Your task to perform on an android device: Open Yahoo.com Image 0: 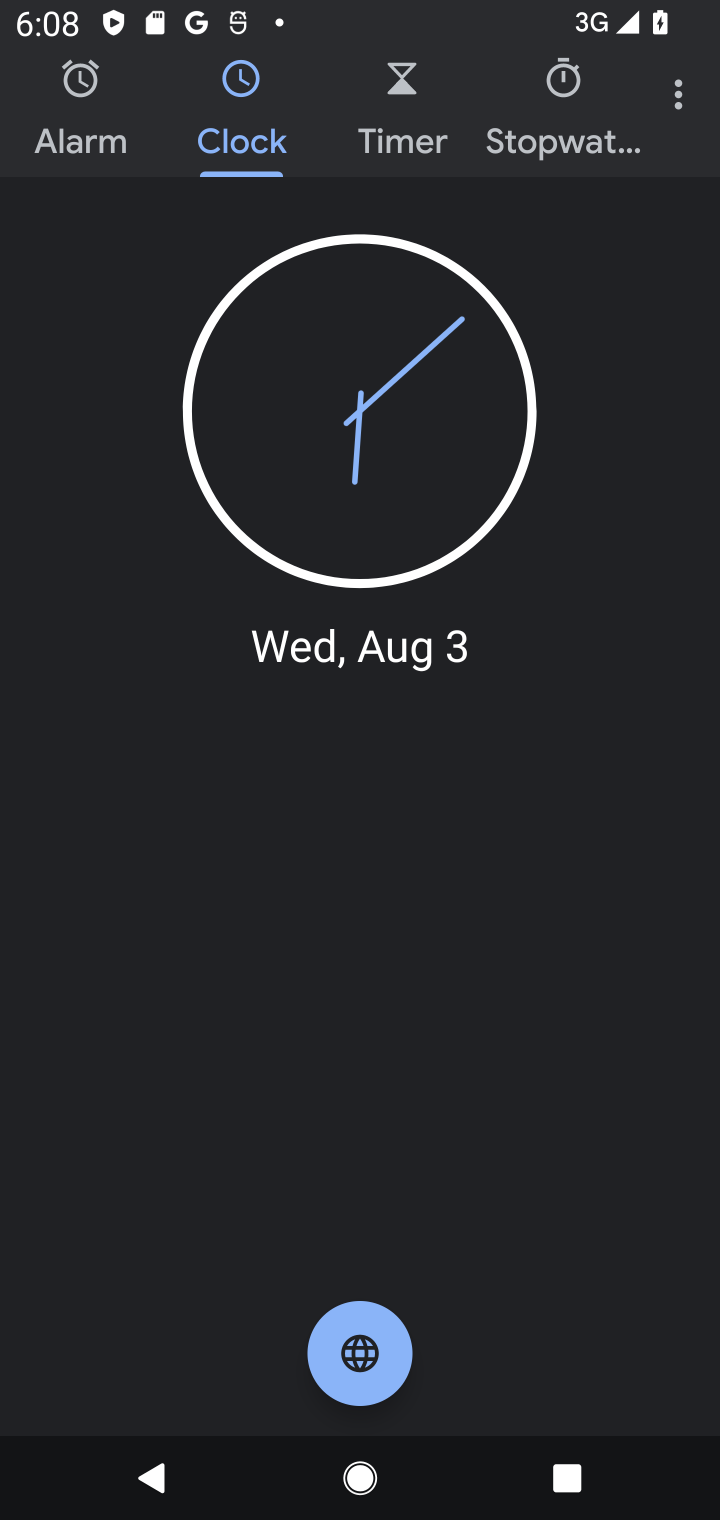
Step 0: press home button
Your task to perform on an android device: Open Yahoo.com Image 1: 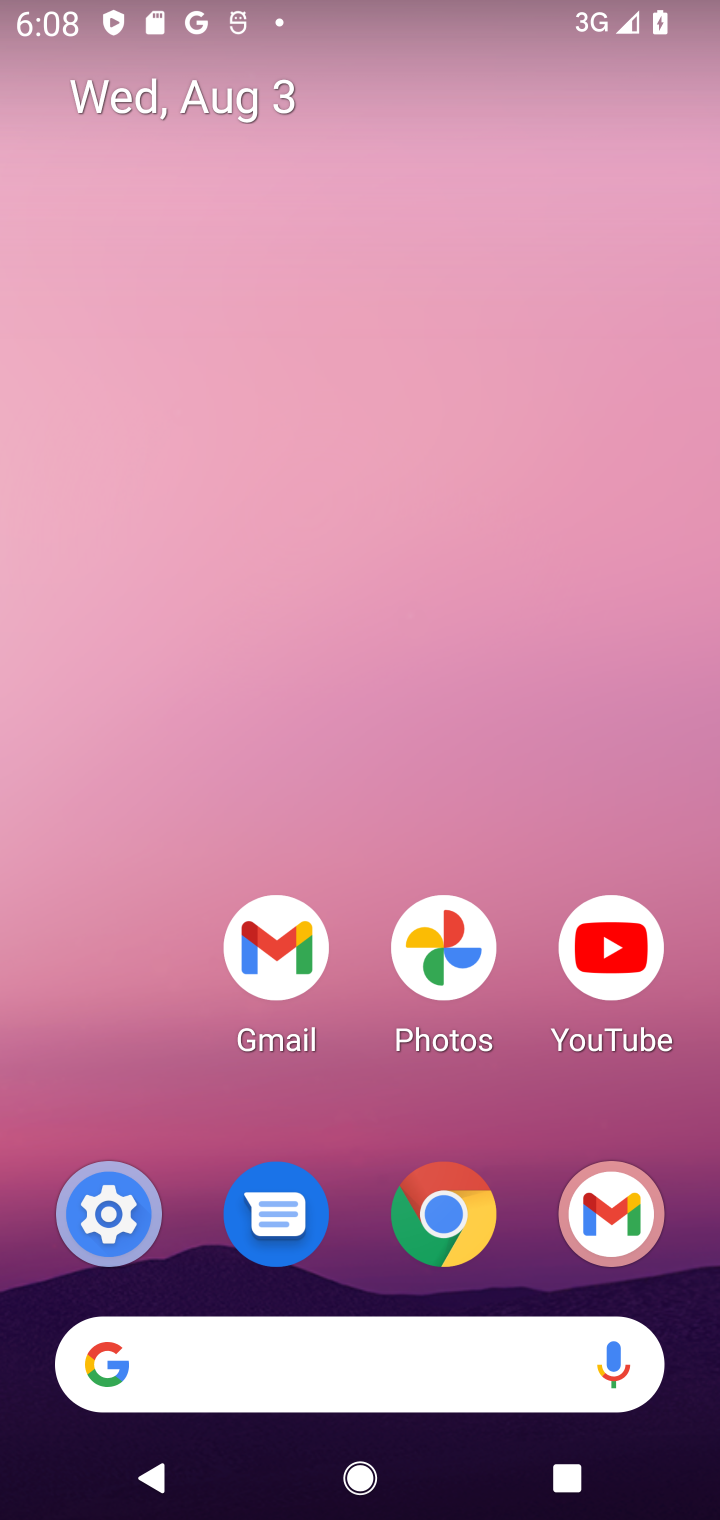
Step 1: click (430, 1204)
Your task to perform on an android device: Open Yahoo.com Image 2: 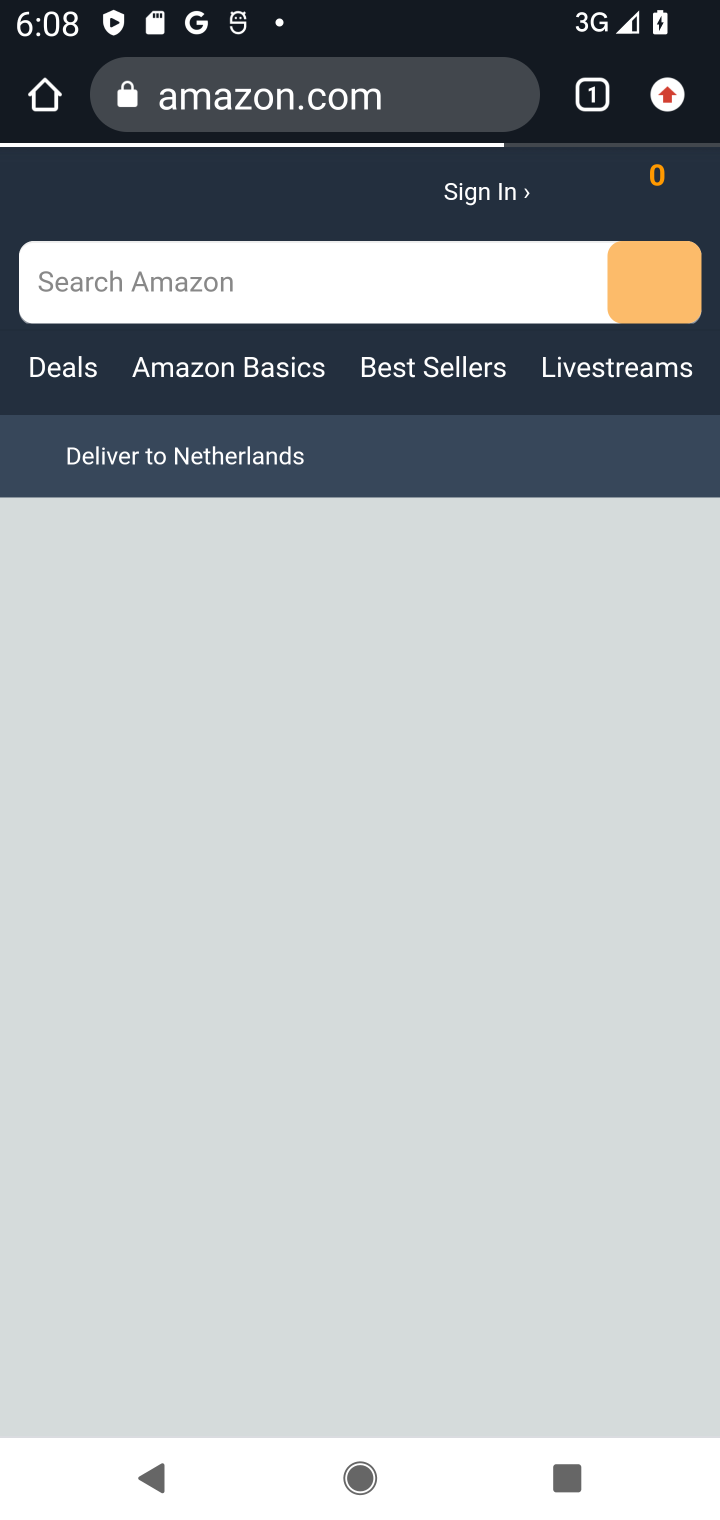
Step 2: click (321, 109)
Your task to perform on an android device: Open Yahoo.com Image 3: 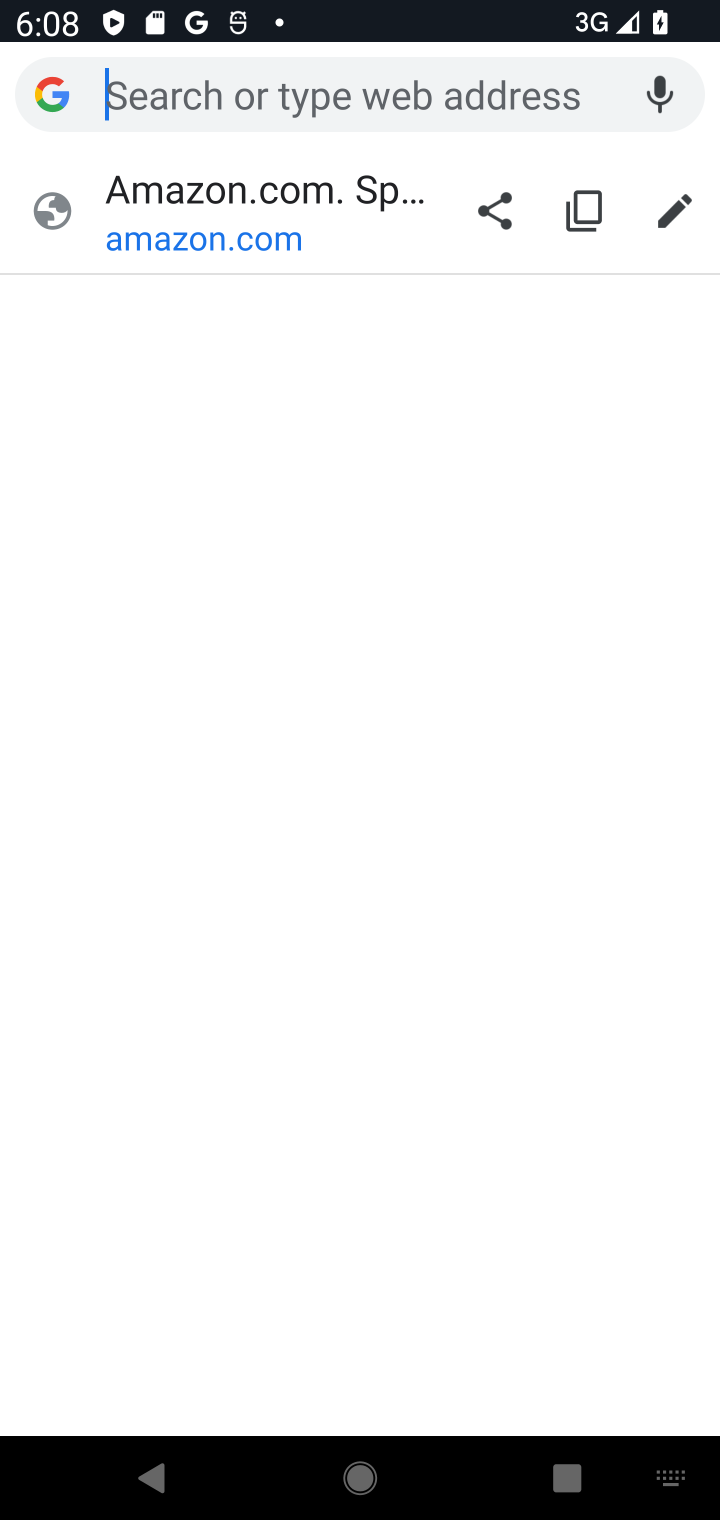
Step 3: type "yahoo.com"
Your task to perform on an android device: Open Yahoo.com Image 4: 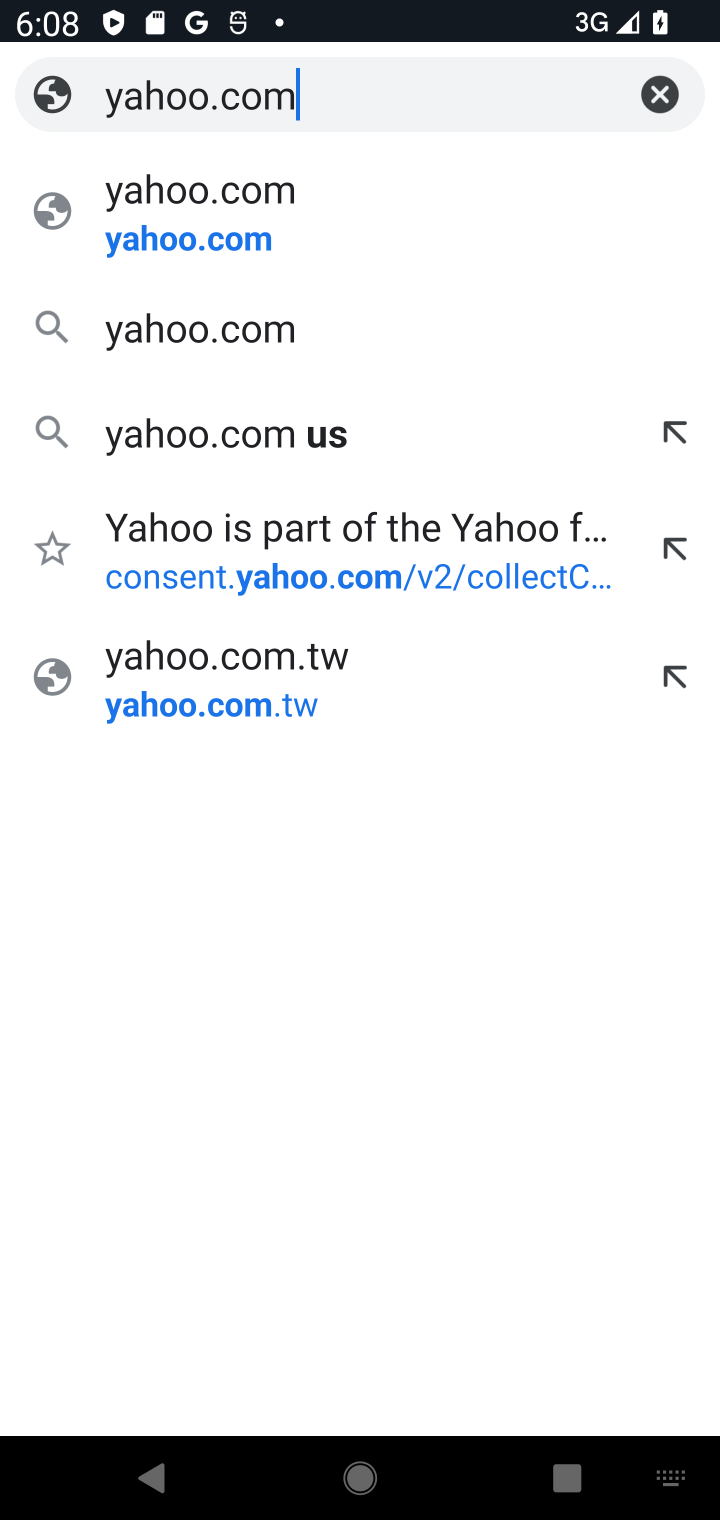
Step 4: click (220, 202)
Your task to perform on an android device: Open Yahoo.com Image 5: 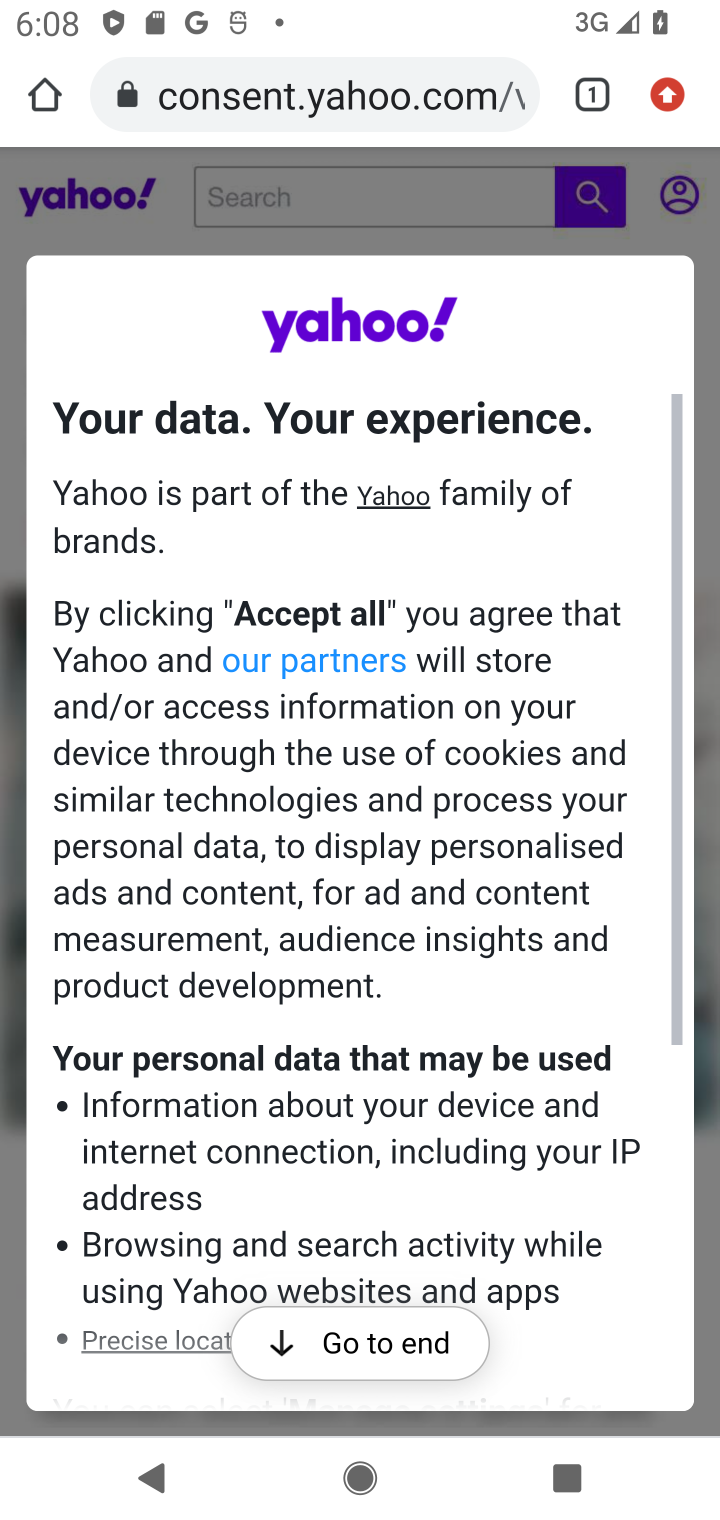
Step 5: task complete